Your task to perform on an android device: Show me the alarms in the clock app Image 0: 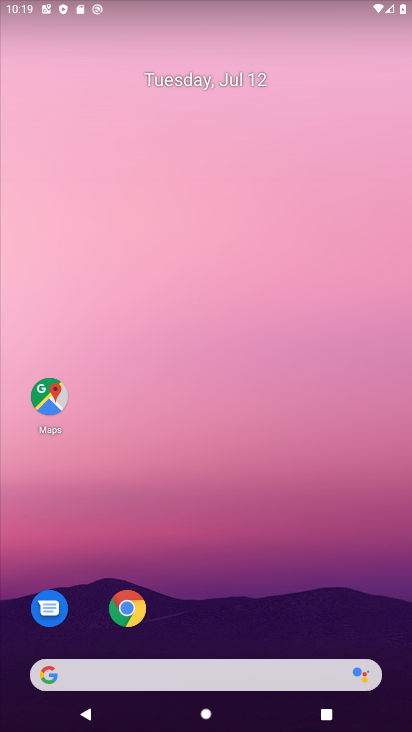
Step 0: drag from (295, 592) to (369, 57)
Your task to perform on an android device: Show me the alarms in the clock app Image 1: 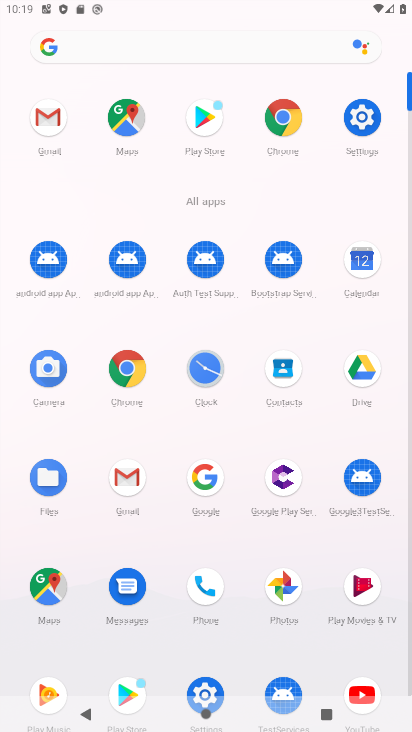
Step 1: click (197, 347)
Your task to perform on an android device: Show me the alarms in the clock app Image 2: 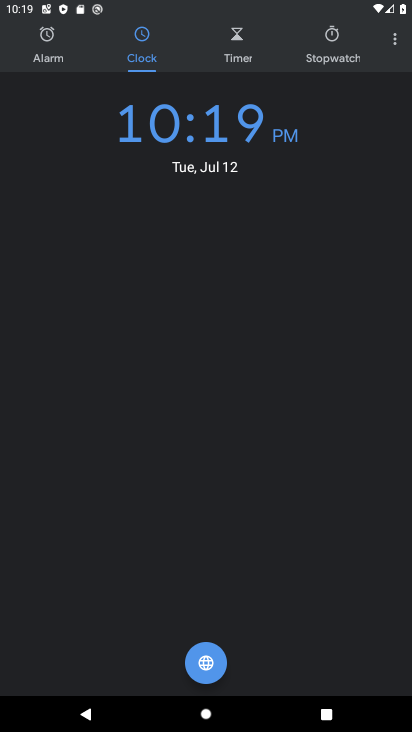
Step 2: click (68, 54)
Your task to perform on an android device: Show me the alarms in the clock app Image 3: 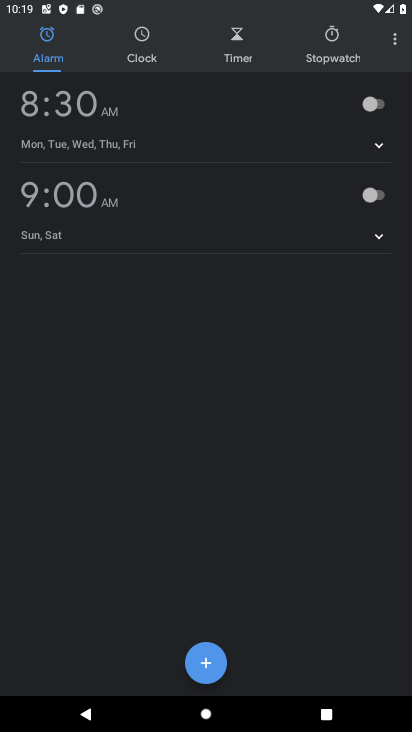
Step 3: task complete